Your task to perform on an android device: Clear the cart on costco.com. Add razer blade to the cart on costco.com, then select checkout. Image 0: 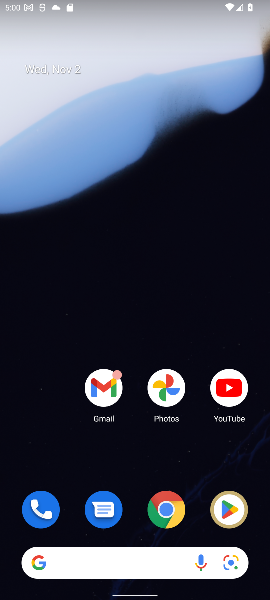
Step 0: press home button
Your task to perform on an android device: Clear the cart on costco.com. Add razer blade to the cart on costco.com, then select checkout. Image 1: 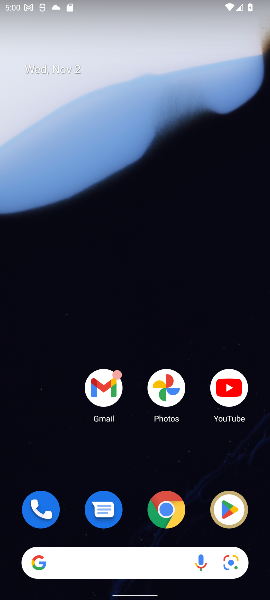
Step 1: click (114, 563)
Your task to perform on an android device: Clear the cart on costco.com. Add razer blade to the cart on costco.com, then select checkout. Image 2: 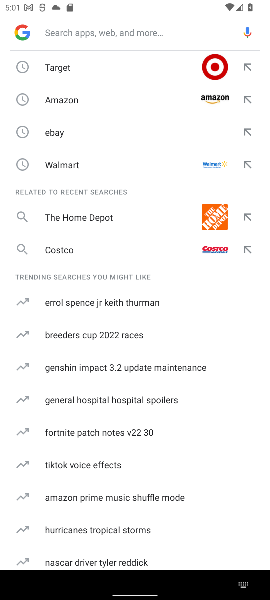
Step 2: type "costco.com"
Your task to perform on an android device: Clear the cart on costco.com. Add razer blade to the cart on costco.com, then select checkout. Image 3: 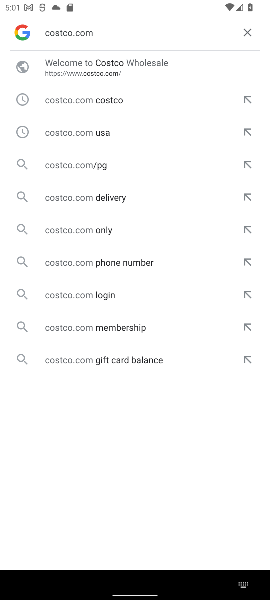
Step 3: click (71, 69)
Your task to perform on an android device: Clear the cart on costco.com. Add razer blade to the cart on costco.com, then select checkout. Image 4: 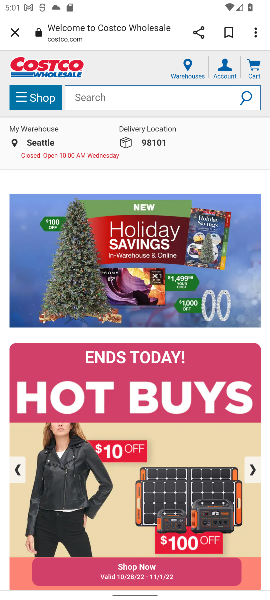
Step 4: click (133, 96)
Your task to perform on an android device: Clear the cart on costco.com. Add razer blade to the cart on costco.com, then select checkout. Image 5: 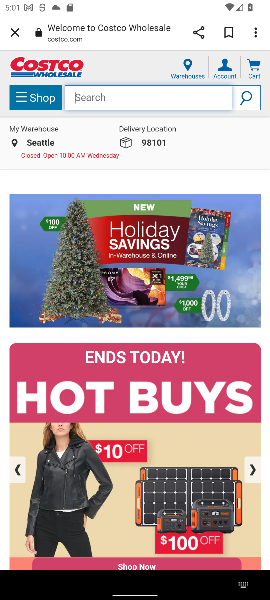
Step 5: type "razer blade"
Your task to perform on an android device: Clear the cart on costco.com. Add razer blade to the cart on costco.com, then select checkout. Image 6: 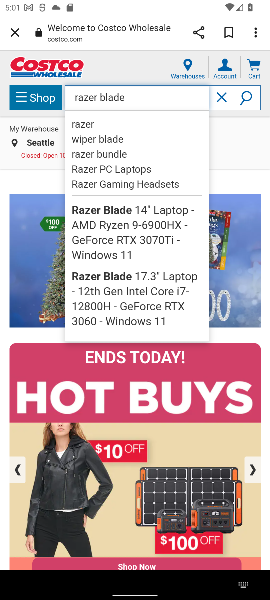
Step 6: click (247, 97)
Your task to perform on an android device: Clear the cart on costco.com. Add razer blade to the cart on costco.com, then select checkout. Image 7: 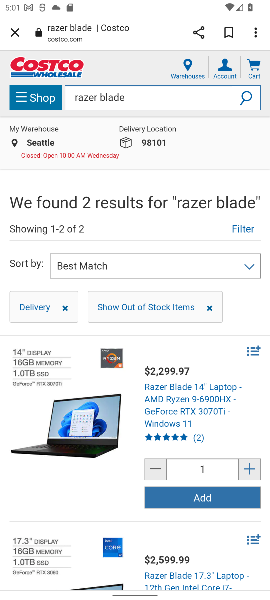
Step 7: click (192, 500)
Your task to perform on an android device: Clear the cart on costco.com. Add razer blade to the cart on costco.com, then select checkout. Image 8: 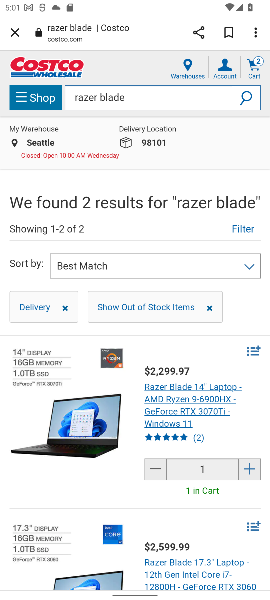
Step 8: click (254, 66)
Your task to perform on an android device: Clear the cart on costco.com. Add razer blade to the cart on costco.com, then select checkout. Image 9: 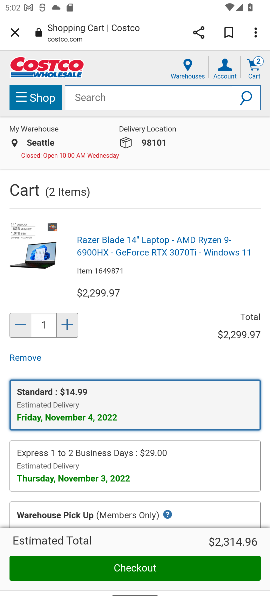
Step 9: click (136, 570)
Your task to perform on an android device: Clear the cart on costco.com. Add razer blade to the cart on costco.com, then select checkout. Image 10: 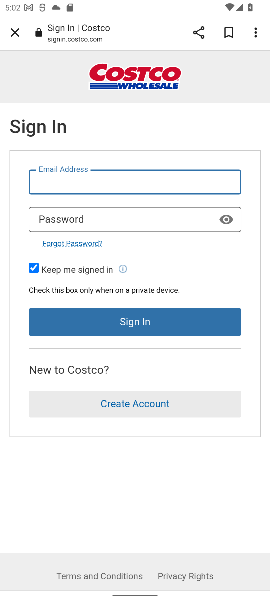
Step 10: task complete